Your task to perform on an android device: Go to Google Image 0: 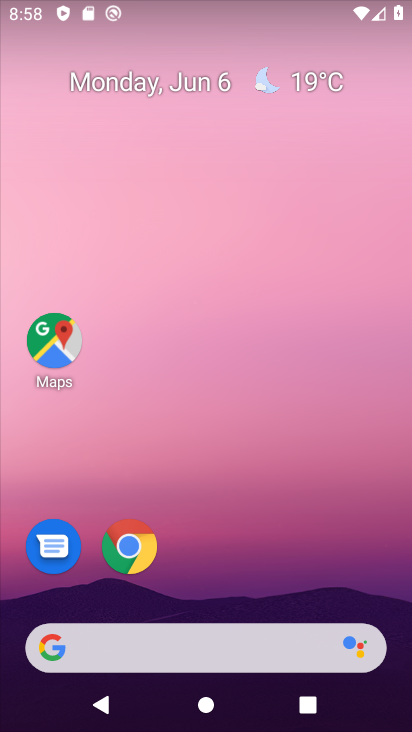
Step 0: drag from (160, 723) to (153, 149)
Your task to perform on an android device: Go to Google Image 1: 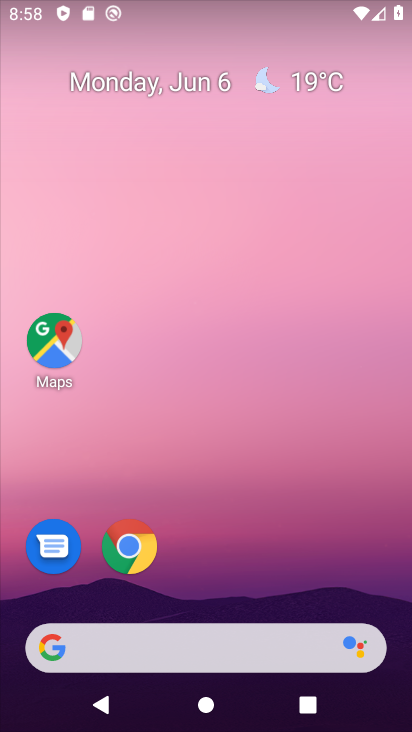
Step 1: drag from (153, 716) to (228, 118)
Your task to perform on an android device: Go to Google Image 2: 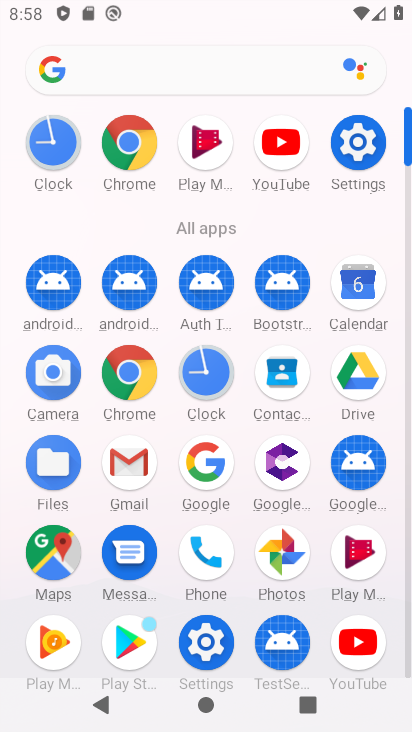
Step 2: click (212, 480)
Your task to perform on an android device: Go to Google Image 3: 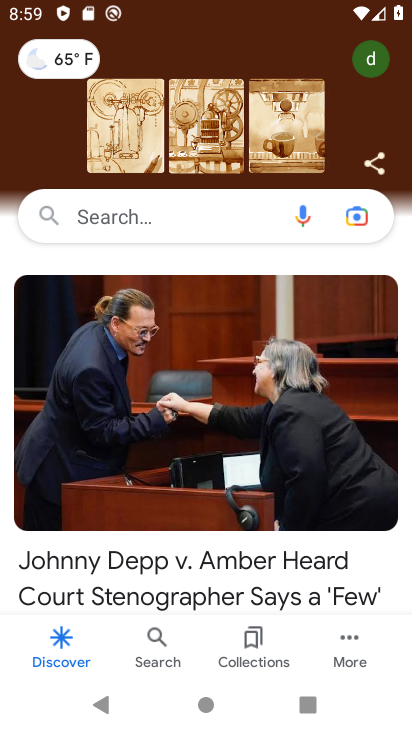
Step 3: task complete